Your task to perform on an android device: Search for "sony triple a" on target, select the first entry, and add it to the cart. Image 0: 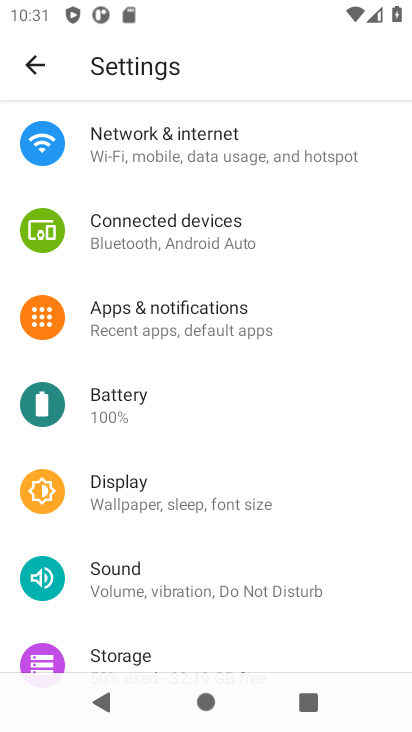
Step 0: press home button
Your task to perform on an android device: Search for "sony triple a" on target, select the first entry, and add it to the cart. Image 1: 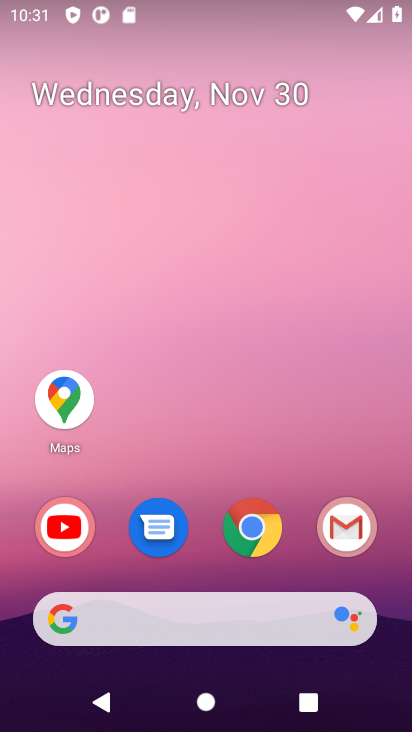
Step 1: click (251, 532)
Your task to perform on an android device: Search for "sony triple a" on target, select the first entry, and add it to the cart. Image 2: 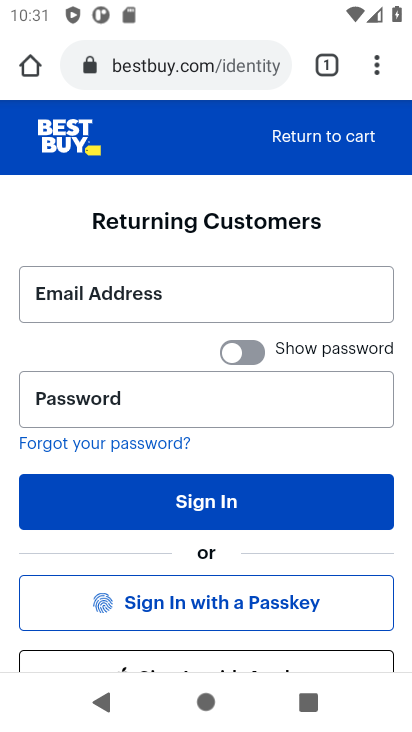
Step 2: click (190, 65)
Your task to perform on an android device: Search for "sony triple a" on target, select the first entry, and add it to the cart. Image 3: 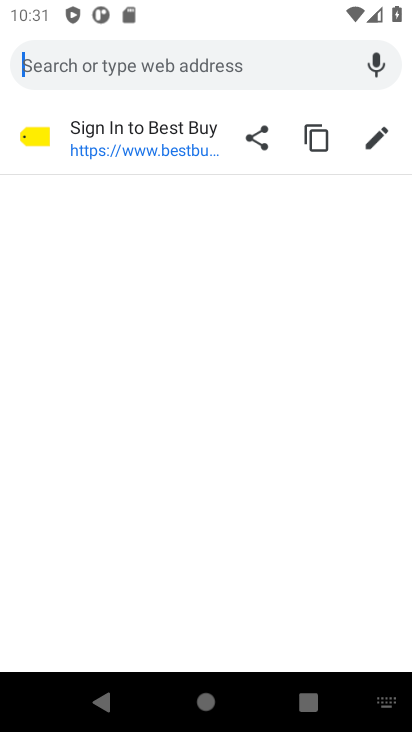
Step 3: type "target.com"
Your task to perform on an android device: Search for "sony triple a" on target, select the first entry, and add it to the cart. Image 4: 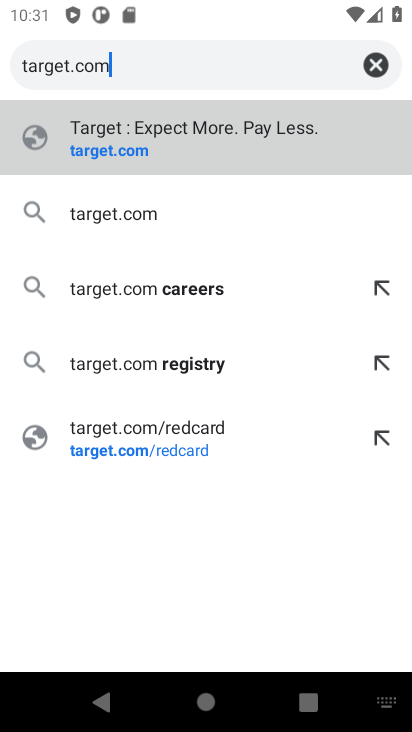
Step 4: click (96, 133)
Your task to perform on an android device: Search for "sony triple a" on target, select the first entry, and add it to the cart. Image 5: 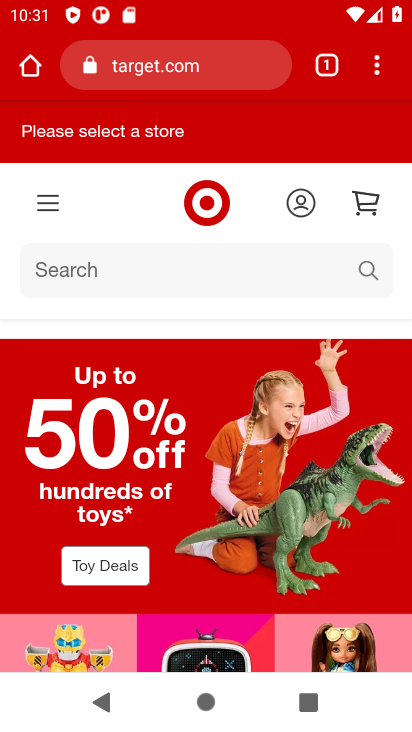
Step 5: click (62, 273)
Your task to perform on an android device: Search for "sony triple a" on target, select the first entry, and add it to the cart. Image 6: 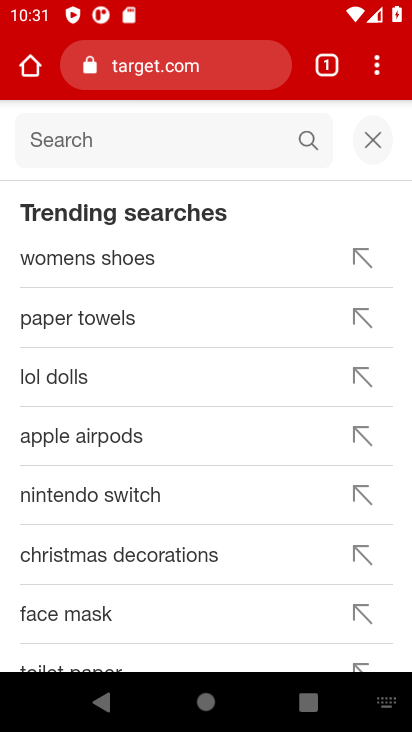
Step 6: type "sony triple a"
Your task to perform on an android device: Search for "sony triple a" on target, select the first entry, and add it to the cart. Image 7: 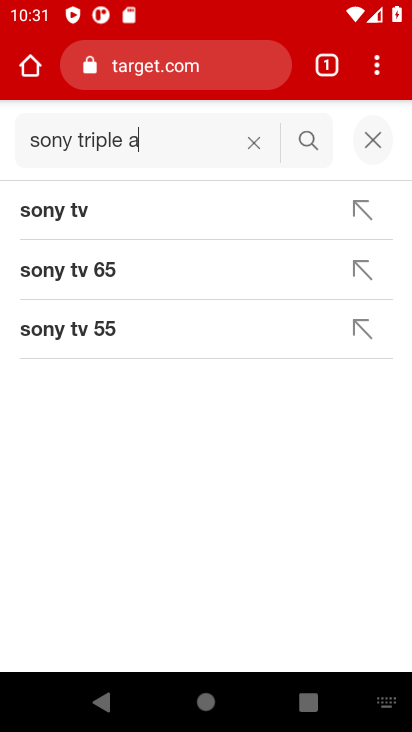
Step 7: click (313, 143)
Your task to perform on an android device: Search for "sony triple a" on target, select the first entry, and add it to the cart. Image 8: 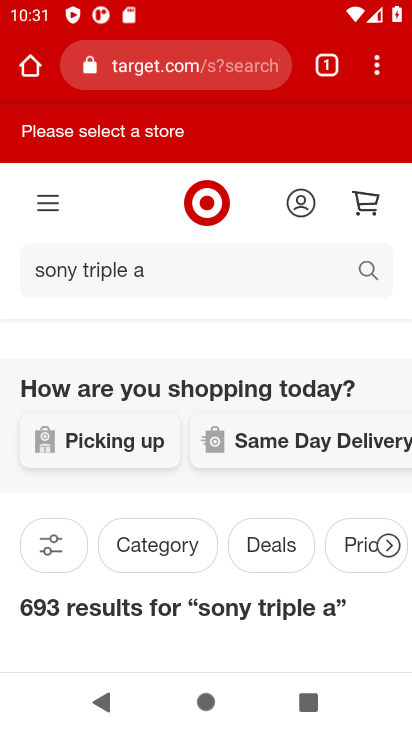
Step 8: task complete